Your task to perform on an android device: View the shopping cart on bestbuy.com. Search for "macbook pro" on bestbuy.com, select the first entry, add it to the cart, then select checkout. Image 0: 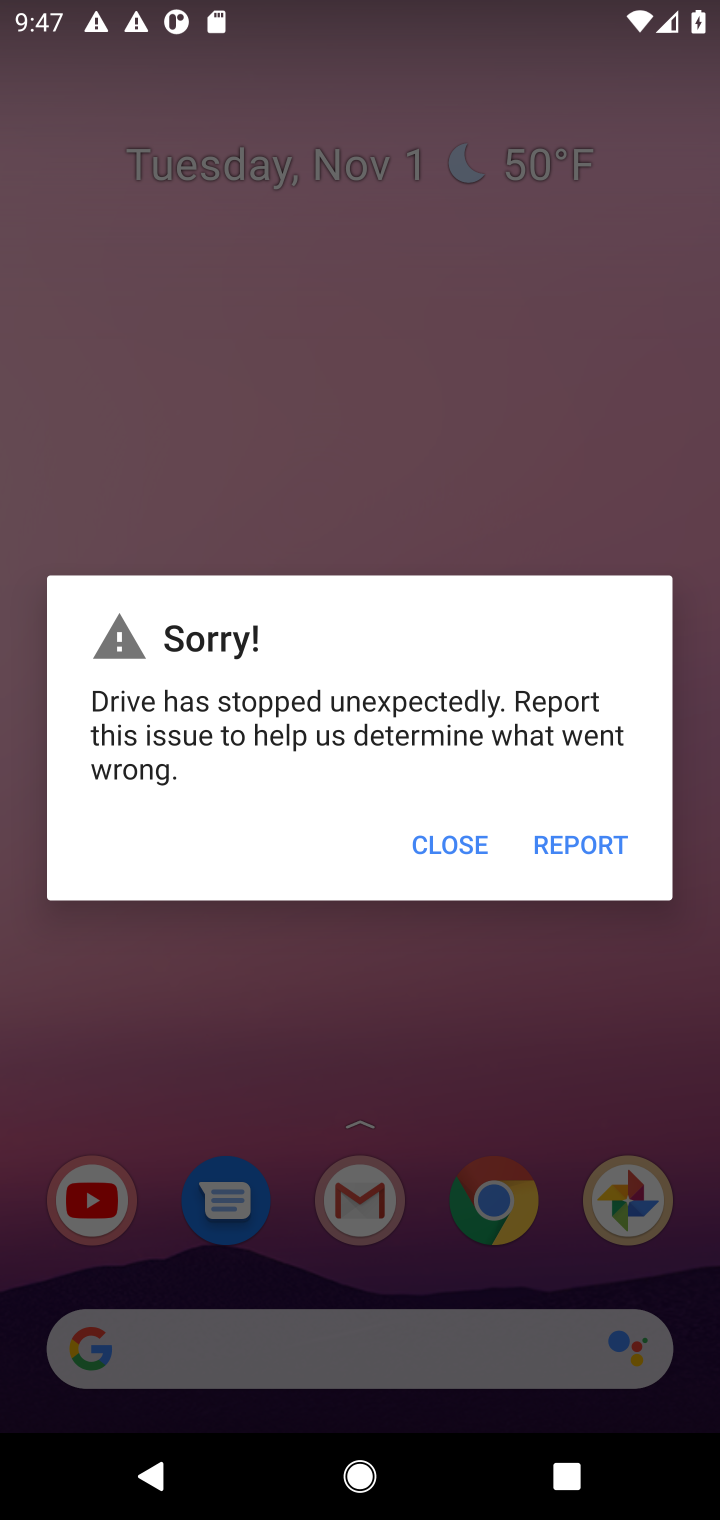
Step 0: click (459, 839)
Your task to perform on an android device: View the shopping cart on bestbuy.com. Search for "macbook pro" on bestbuy.com, select the first entry, add it to the cart, then select checkout. Image 1: 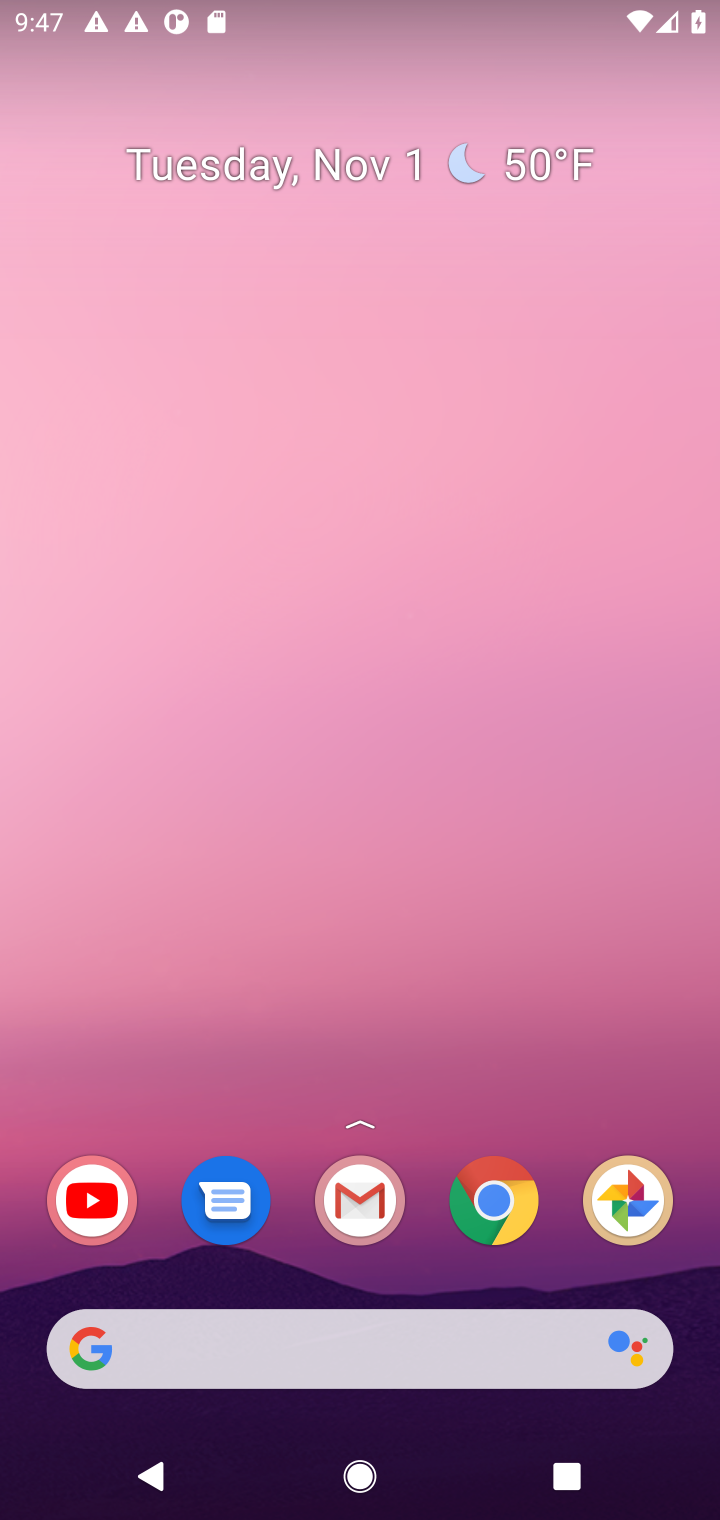
Step 1: click (364, 1332)
Your task to perform on an android device: View the shopping cart on bestbuy.com. Search for "macbook pro" on bestbuy.com, select the first entry, add it to the cart, then select checkout. Image 2: 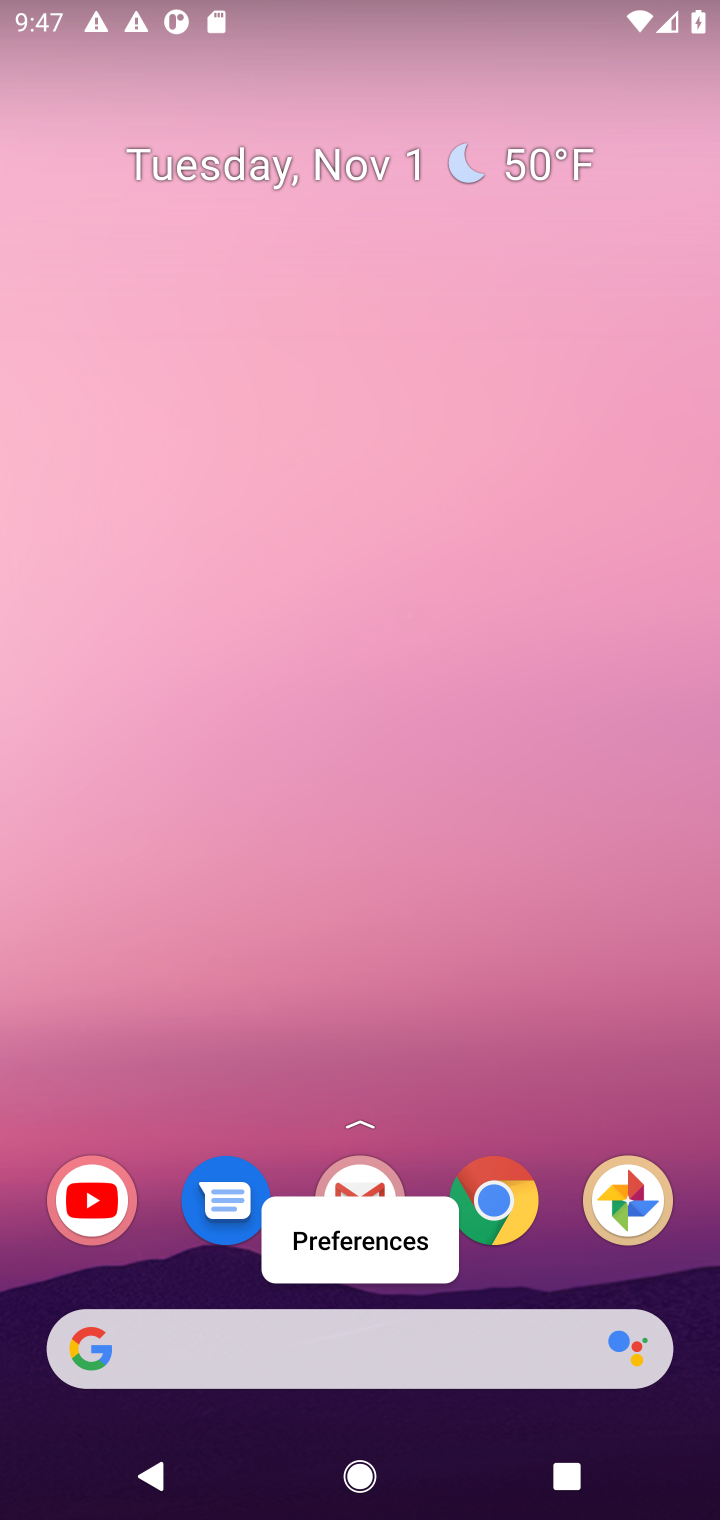
Step 2: click (212, 1339)
Your task to perform on an android device: View the shopping cart on bestbuy.com. Search for "macbook pro" on bestbuy.com, select the first entry, add it to the cart, then select checkout. Image 3: 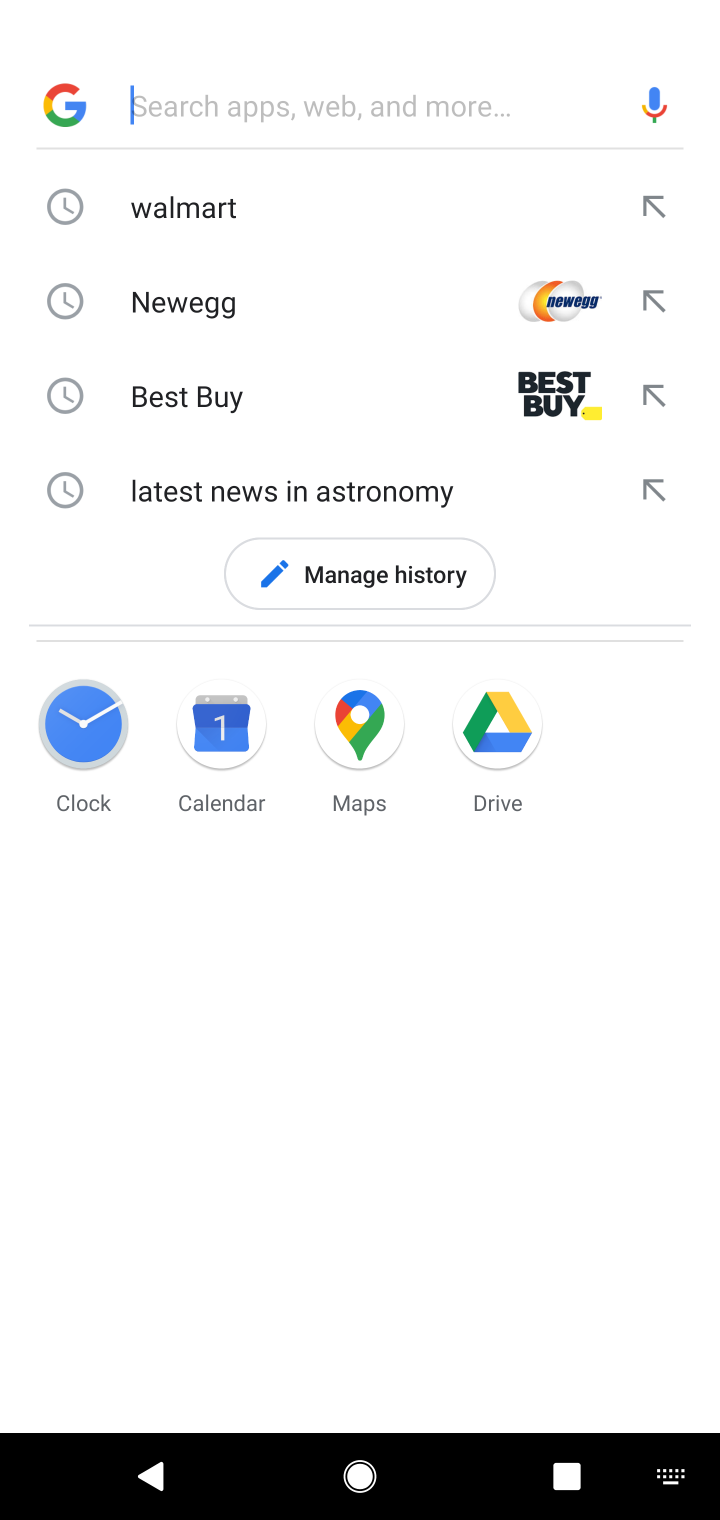
Step 3: type "bestbuy.com"
Your task to perform on an android device: View the shopping cart on bestbuy.com. Search for "macbook pro" on bestbuy.com, select the first entry, add it to the cart, then select checkout. Image 4: 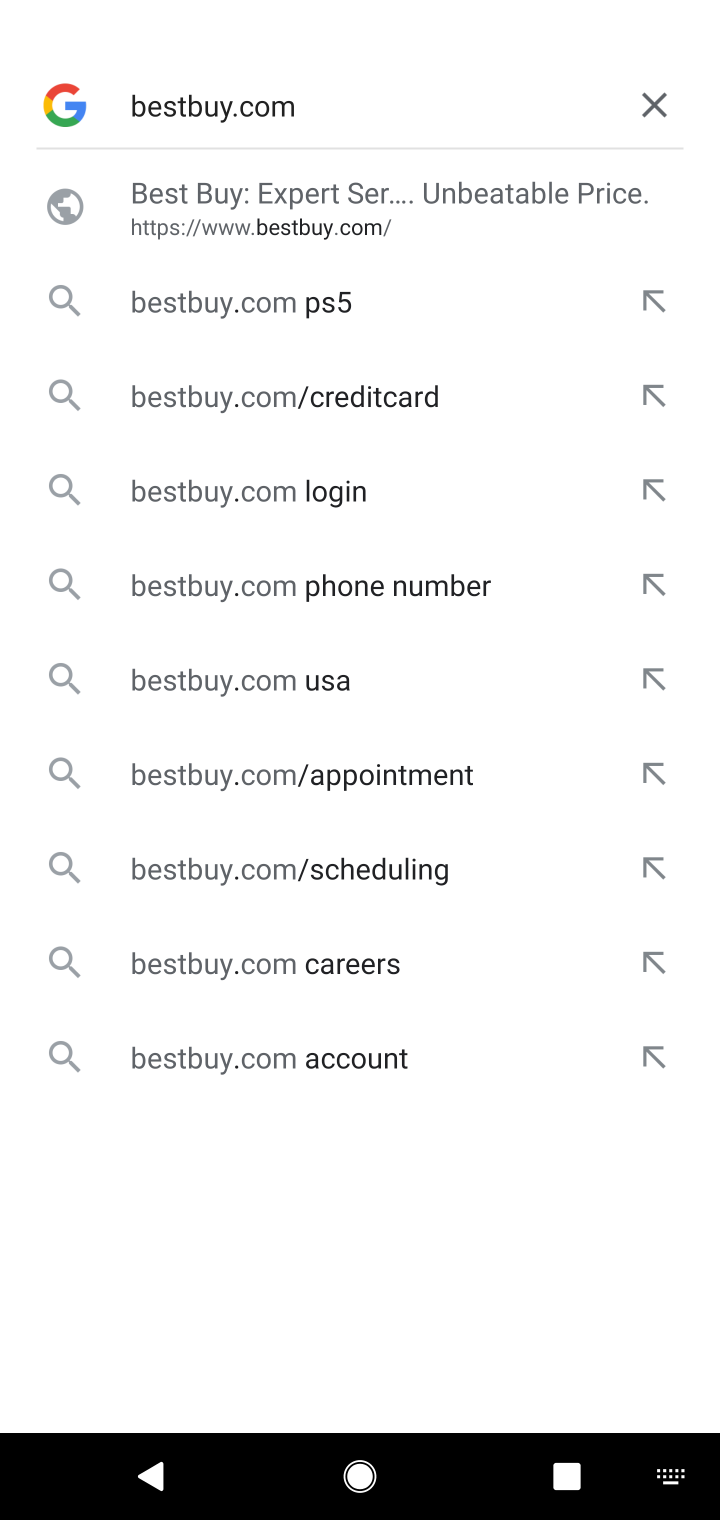
Step 4: type ""
Your task to perform on an android device: View the shopping cart on bestbuy.com. Search for "macbook pro" on bestbuy.com, select the first entry, add it to the cart, then select checkout. Image 5: 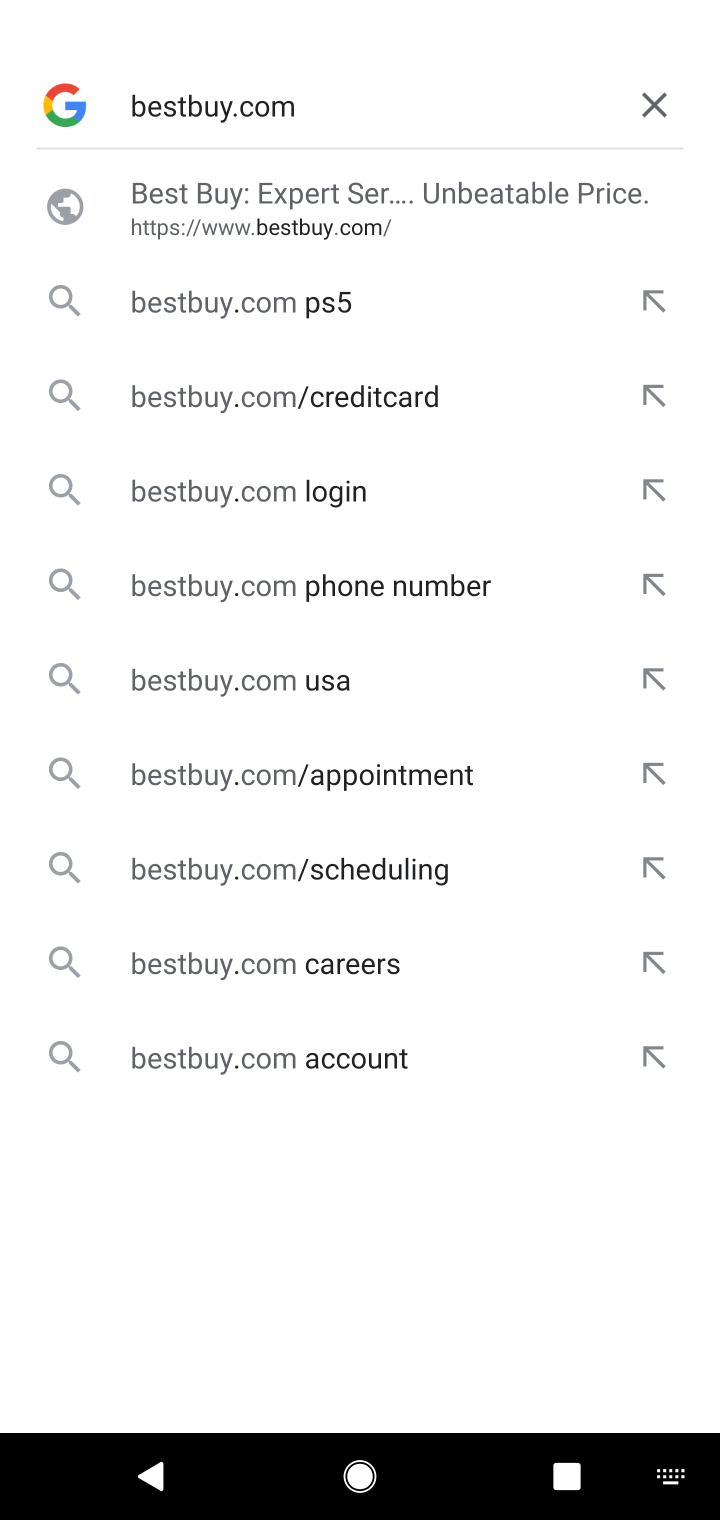
Step 5: click (301, 236)
Your task to perform on an android device: View the shopping cart on bestbuy.com. Search for "macbook pro" on bestbuy.com, select the first entry, add it to the cart, then select checkout. Image 6: 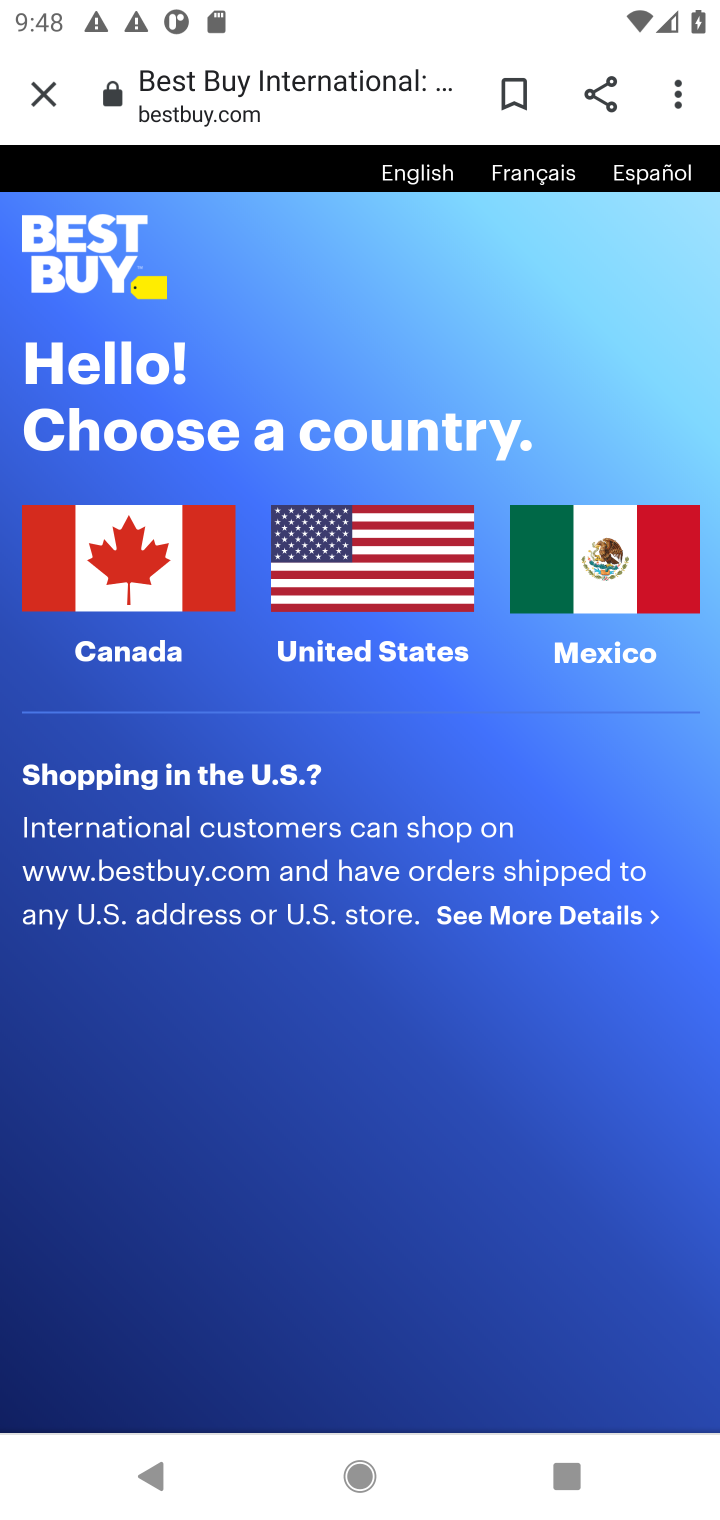
Step 6: click (448, 573)
Your task to perform on an android device: View the shopping cart on bestbuy.com. Search for "macbook pro" on bestbuy.com, select the first entry, add it to the cart, then select checkout. Image 7: 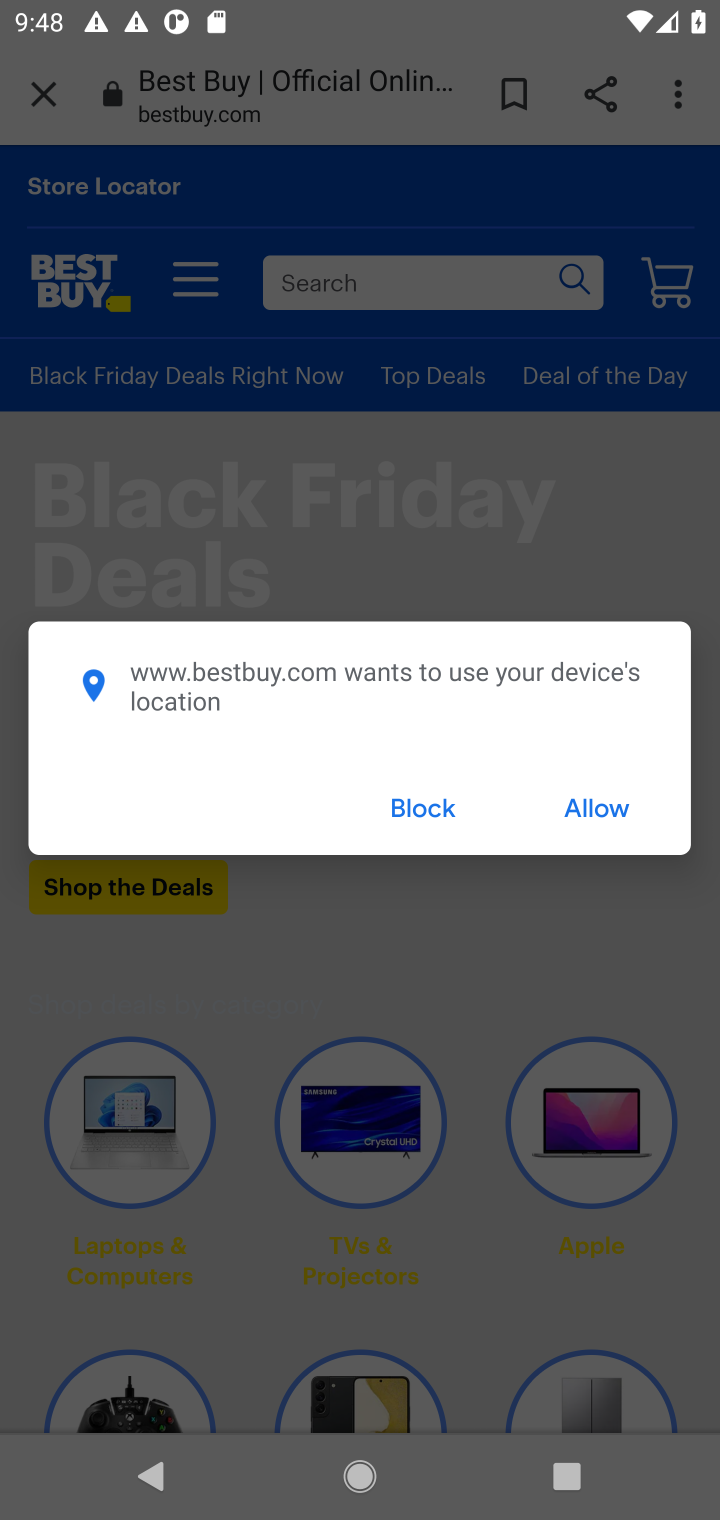
Step 7: click (386, 824)
Your task to perform on an android device: View the shopping cart on bestbuy.com. Search for "macbook pro" on bestbuy.com, select the first entry, add it to the cart, then select checkout. Image 8: 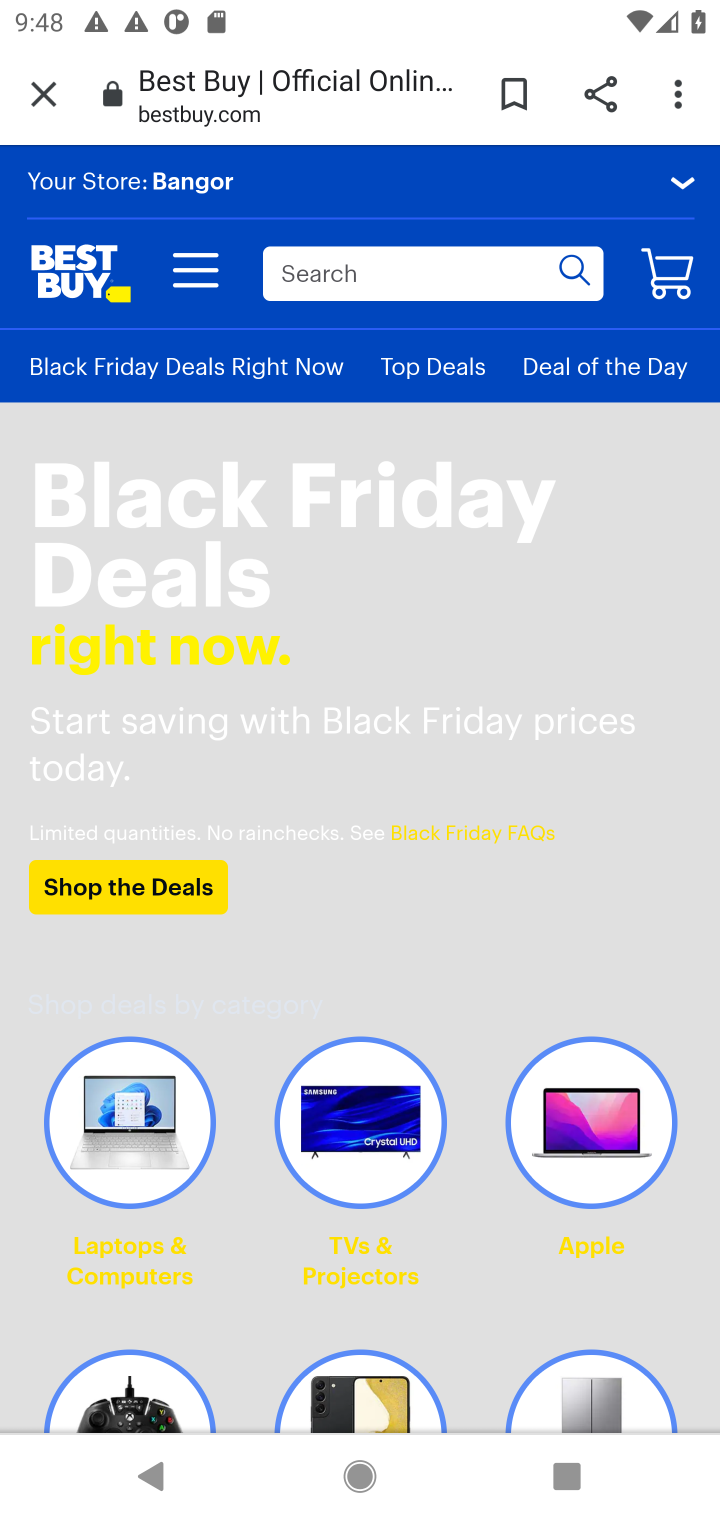
Step 8: click (335, 280)
Your task to perform on an android device: View the shopping cart on bestbuy.com. Search for "macbook pro" on bestbuy.com, select the first entry, add it to the cart, then select checkout. Image 9: 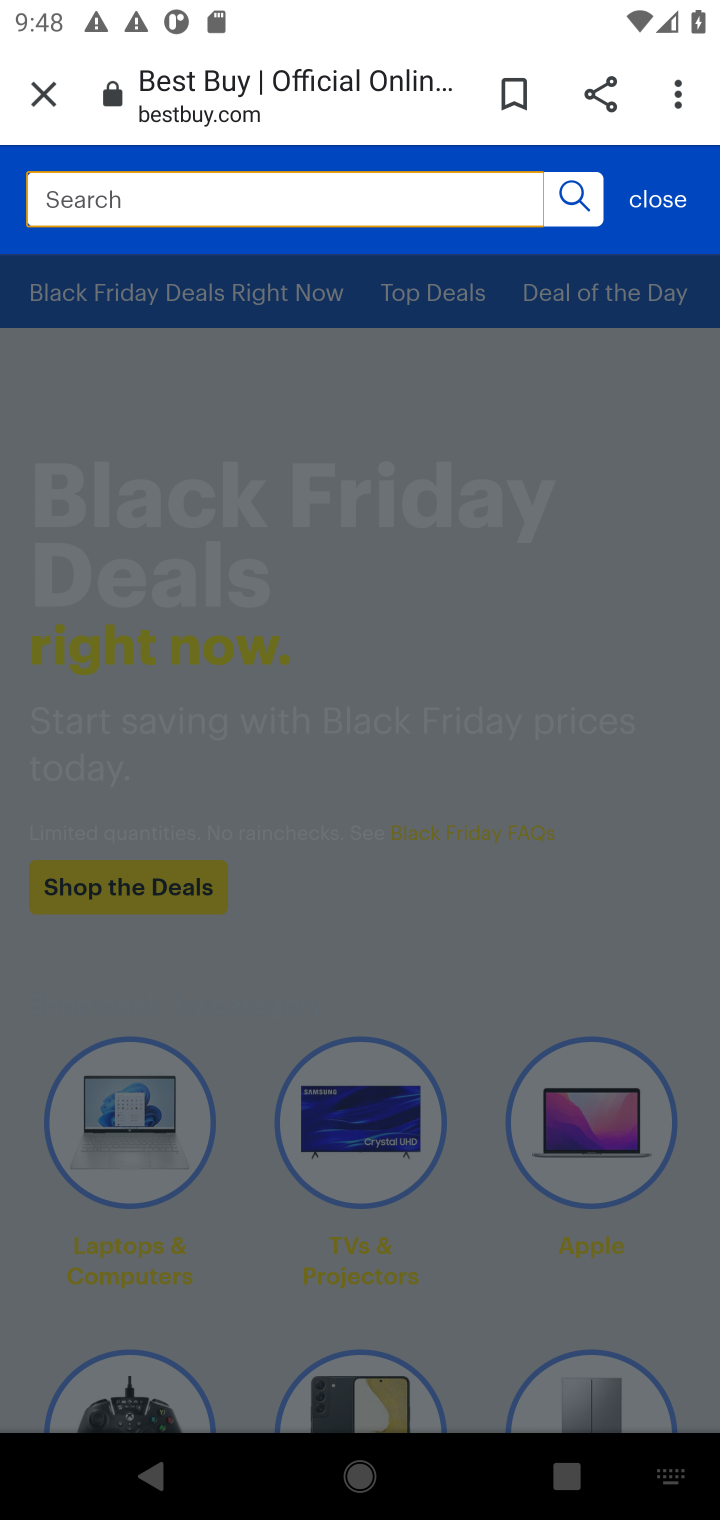
Step 9: type "macbook pro"
Your task to perform on an android device: View the shopping cart on bestbuy.com. Search for "macbook pro" on bestbuy.com, select the first entry, add it to the cart, then select checkout. Image 10: 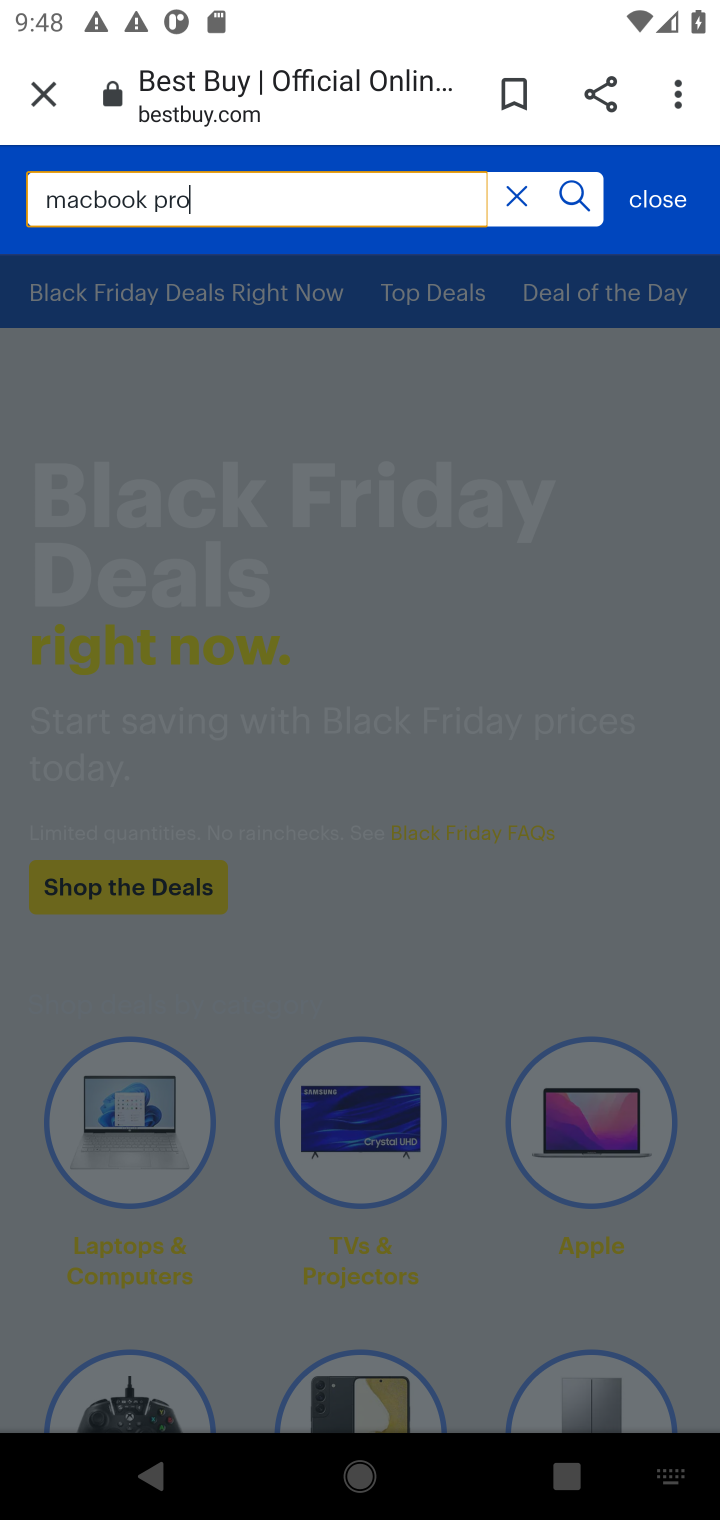
Step 10: type ""
Your task to perform on an android device: View the shopping cart on bestbuy.com. Search for "macbook pro" on bestbuy.com, select the first entry, add it to the cart, then select checkout. Image 11: 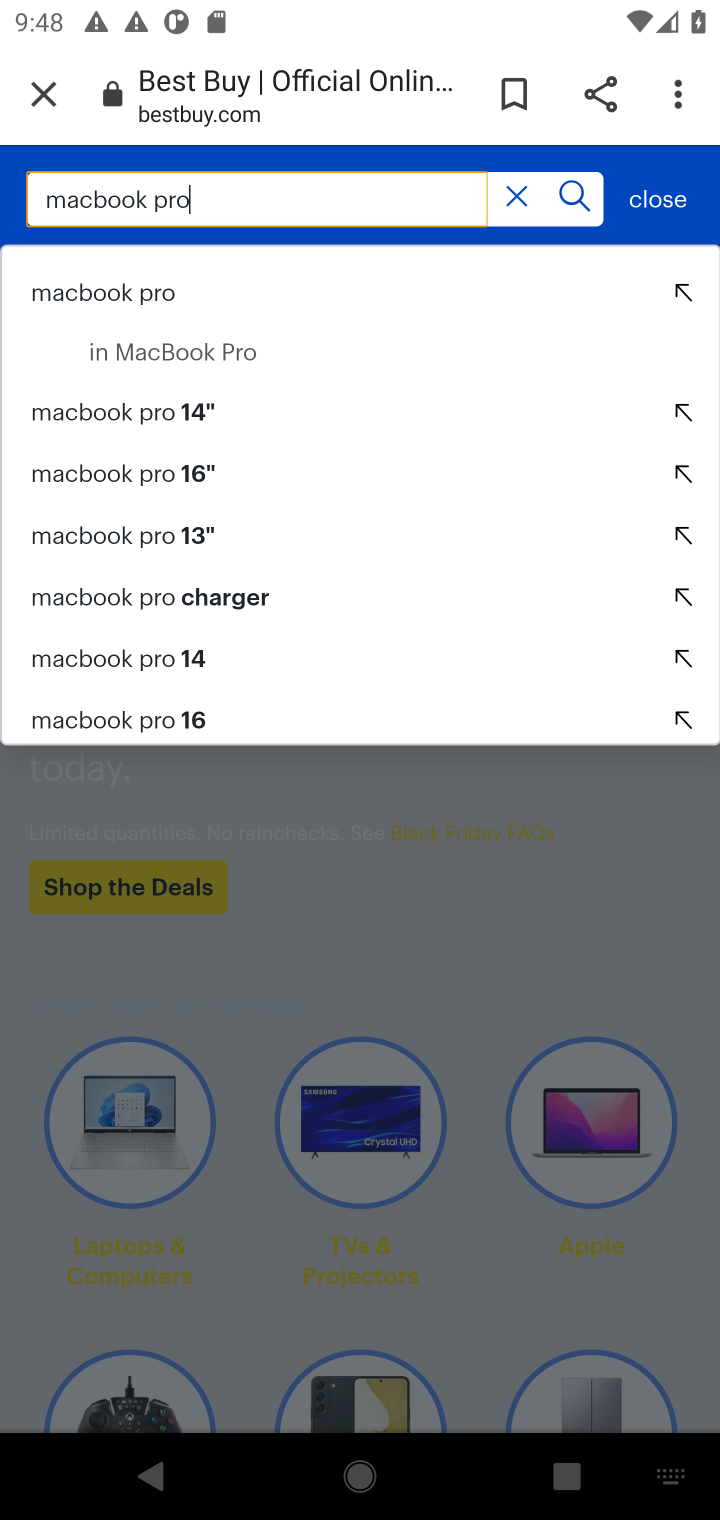
Step 11: click (210, 323)
Your task to perform on an android device: View the shopping cart on bestbuy.com. Search for "macbook pro" on bestbuy.com, select the first entry, add it to the cart, then select checkout. Image 12: 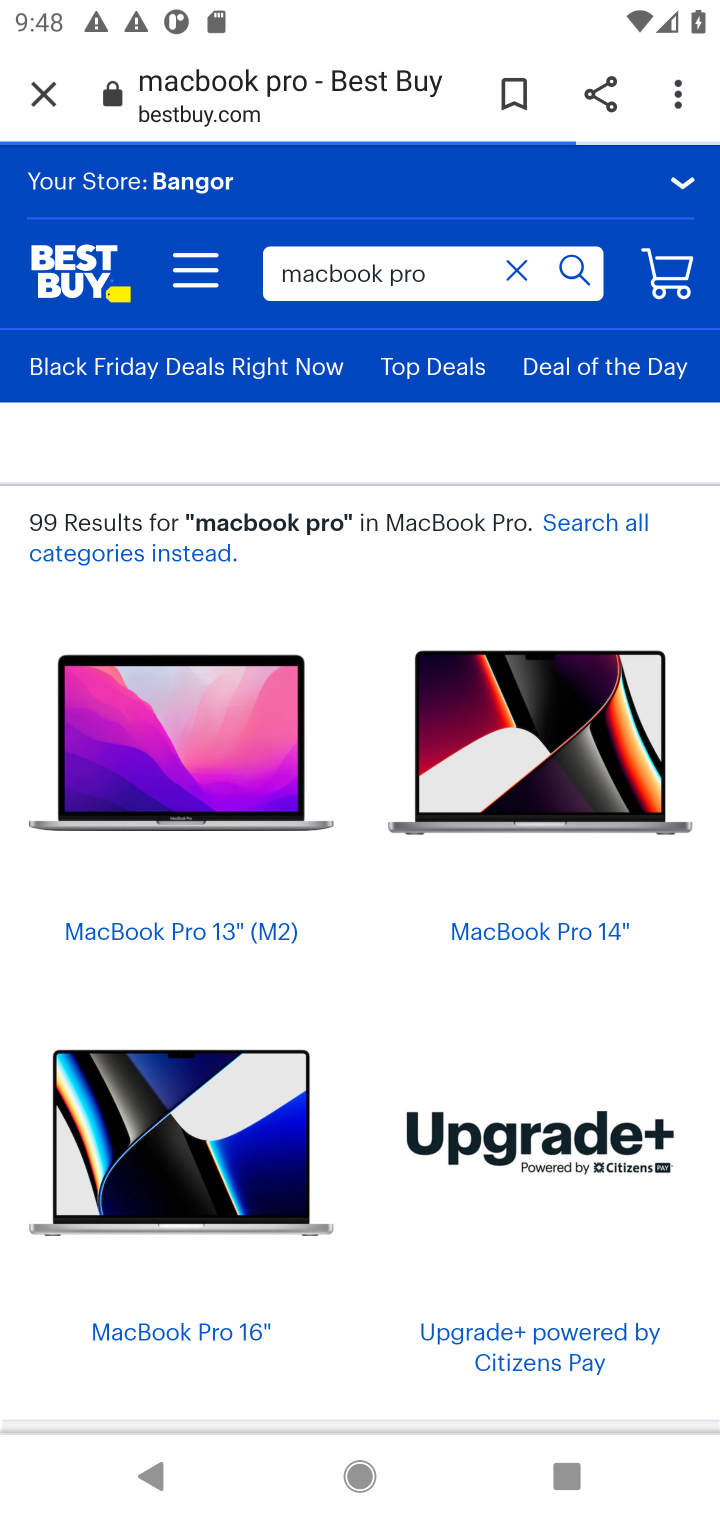
Step 12: click (317, 749)
Your task to perform on an android device: View the shopping cart on bestbuy.com. Search for "macbook pro" on bestbuy.com, select the first entry, add it to the cart, then select checkout. Image 13: 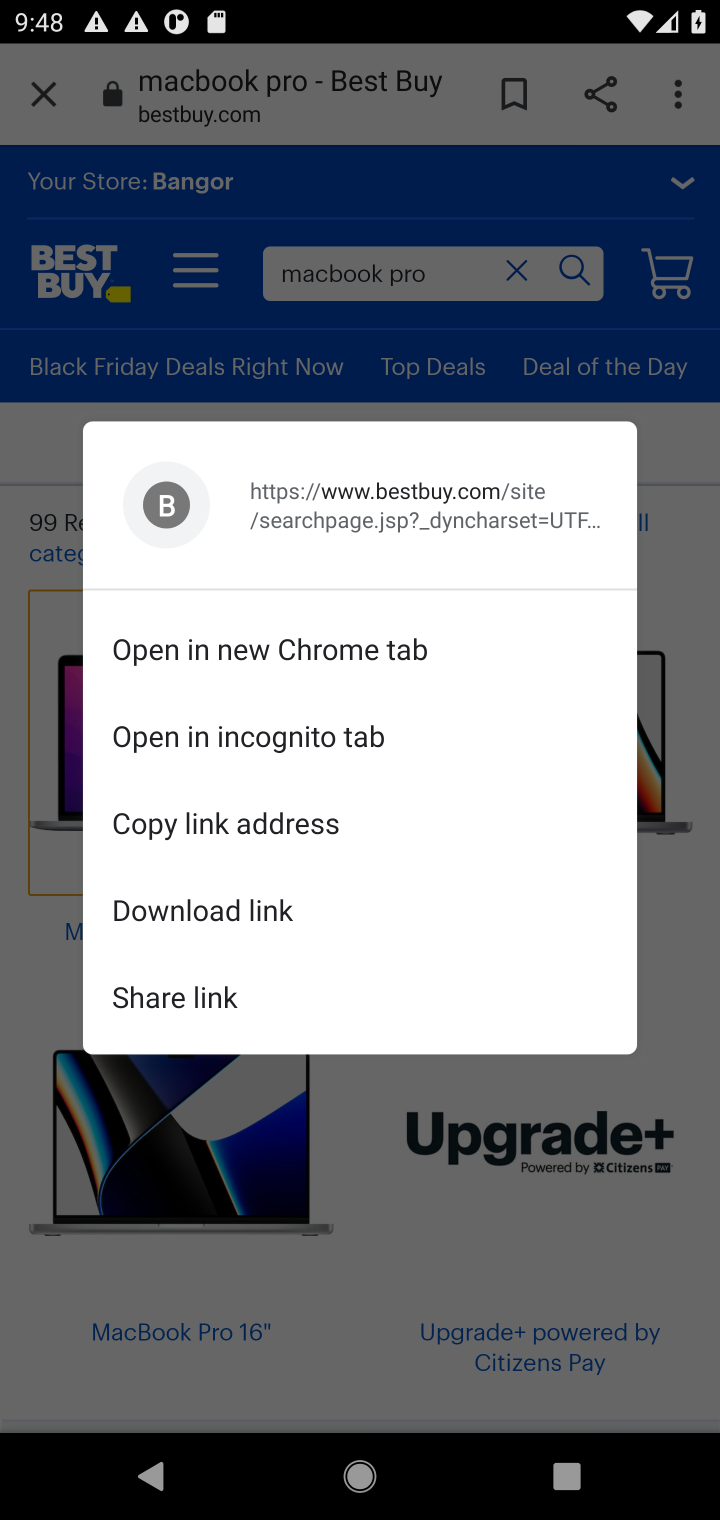
Step 13: click (685, 869)
Your task to perform on an android device: View the shopping cart on bestbuy.com. Search for "macbook pro" on bestbuy.com, select the first entry, add it to the cart, then select checkout. Image 14: 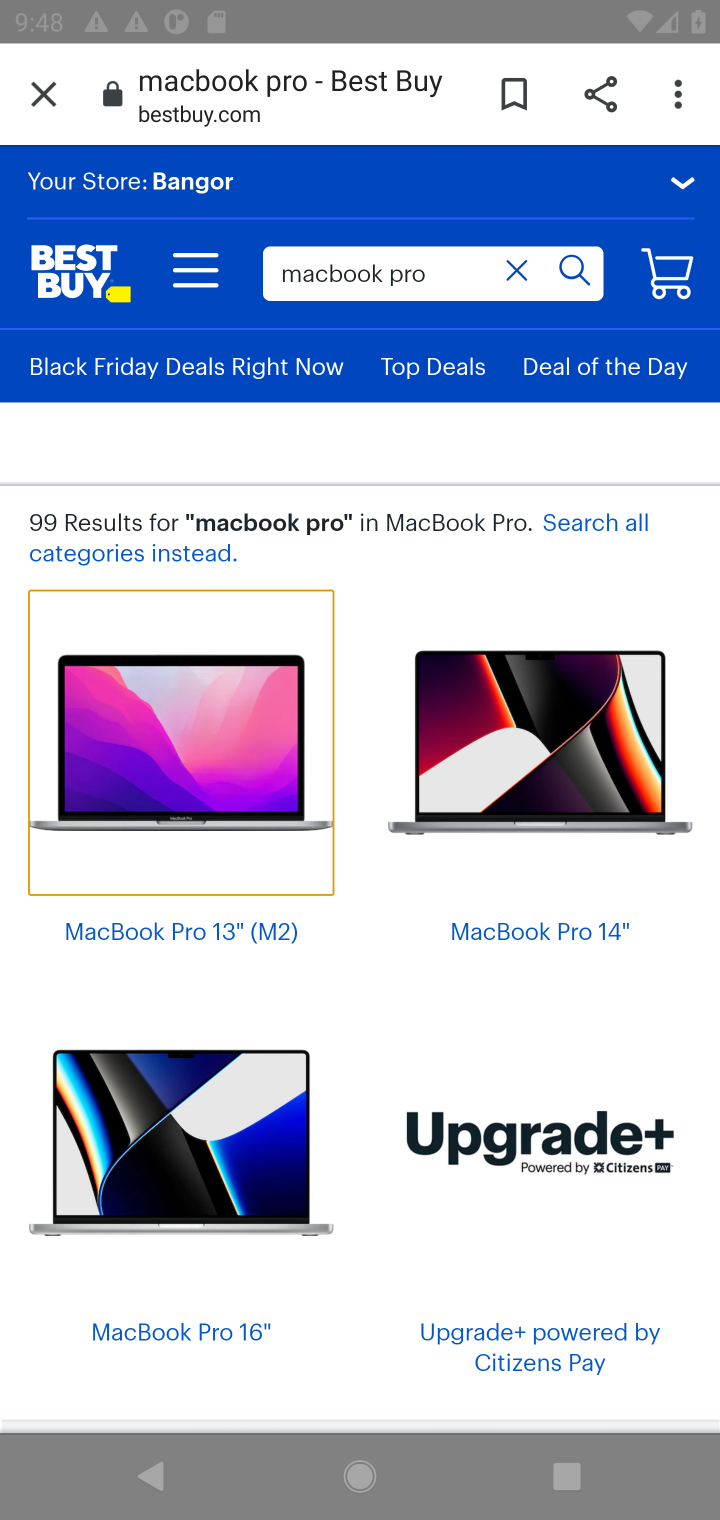
Step 14: click (106, 707)
Your task to perform on an android device: View the shopping cart on bestbuy.com. Search for "macbook pro" on bestbuy.com, select the first entry, add it to the cart, then select checkout. Image 15: 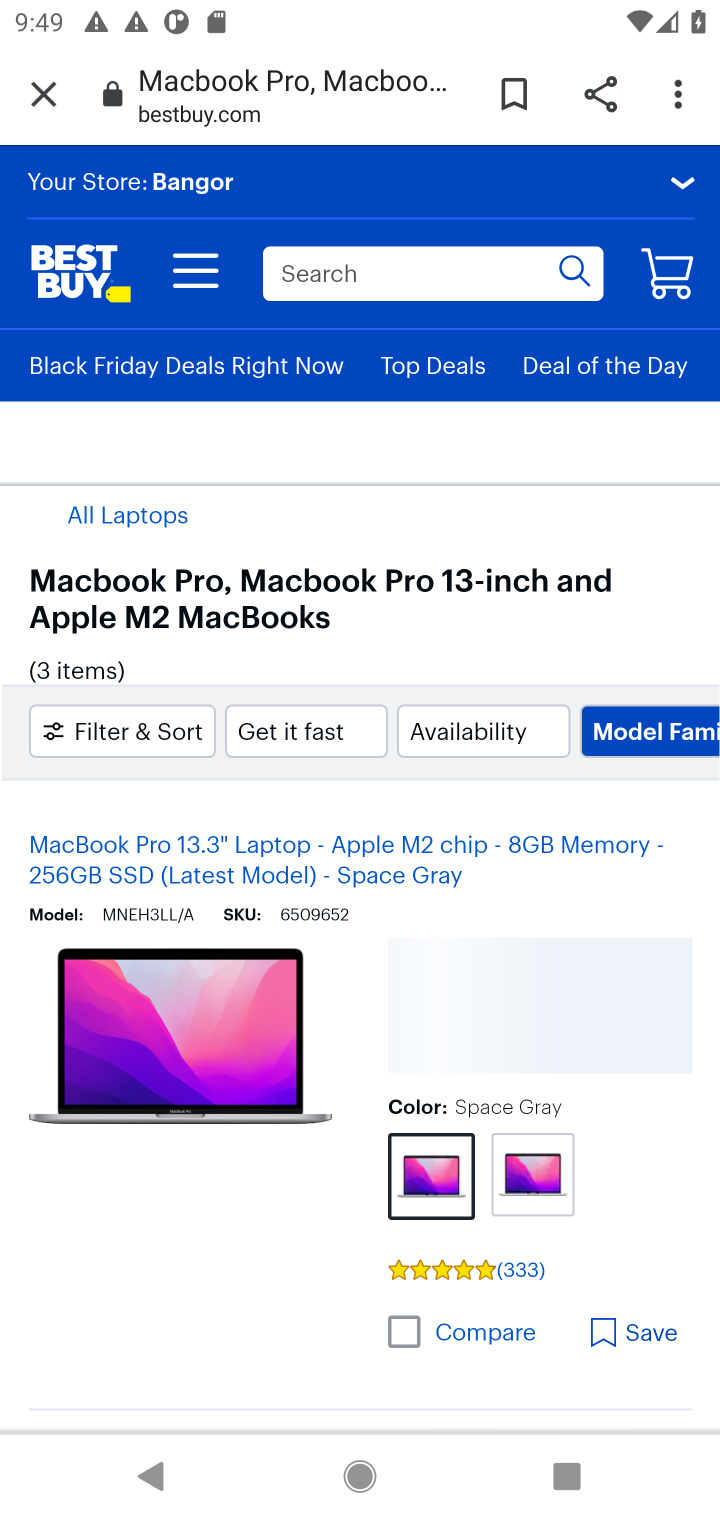
Step 15: drag from (592, 1058) to (671, 421)
Your task to perform on an android device: View the shopping cart on bestbuy.com. Search for "macbook pro" on bestbuy.com, select the first entry, add it to the cart, then select checkout. Image 16: 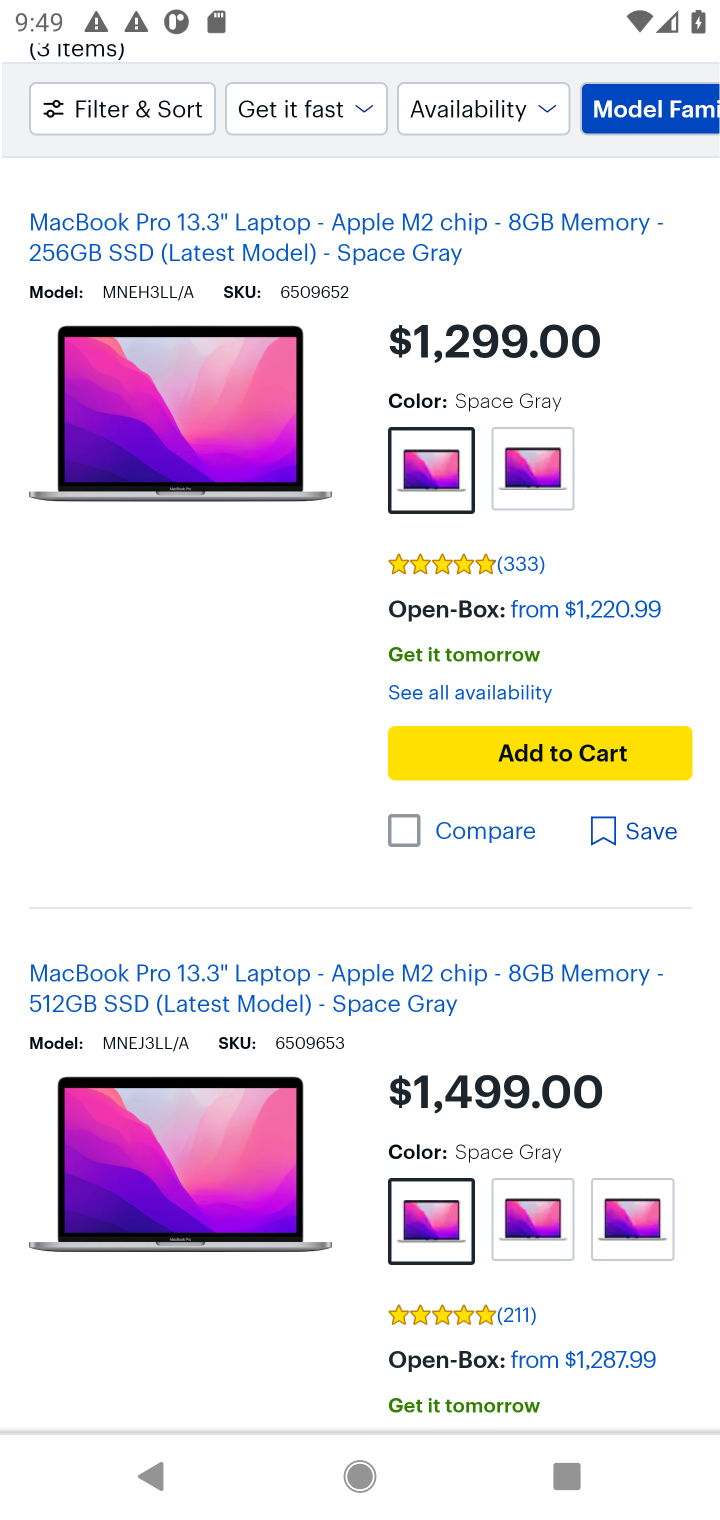
Step 16: click (395, 344)
Your task to perform on an android device: View the shopping cart on bestbuy.com. Search for "macbook pro" on bestbuy.com, select the first entry, add it to the cart, then select checkout. Image 17: 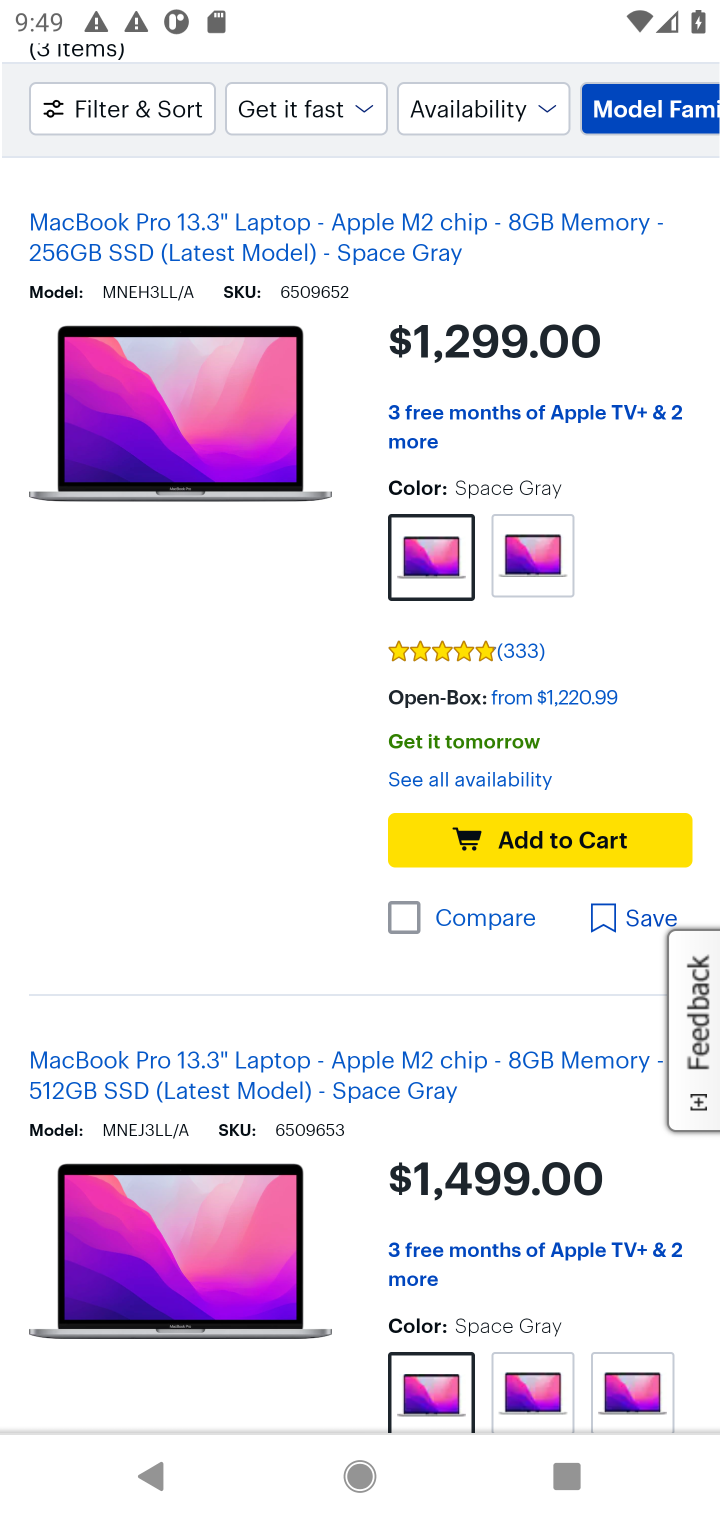
Step 17: click (576, 818)
Your task to perform on an android device: View the shopping cart on bestbuy.com. Search for "macbook pro" on bestbuy.com, select the first entry, add it to the cart, then select checkout. Image 18: 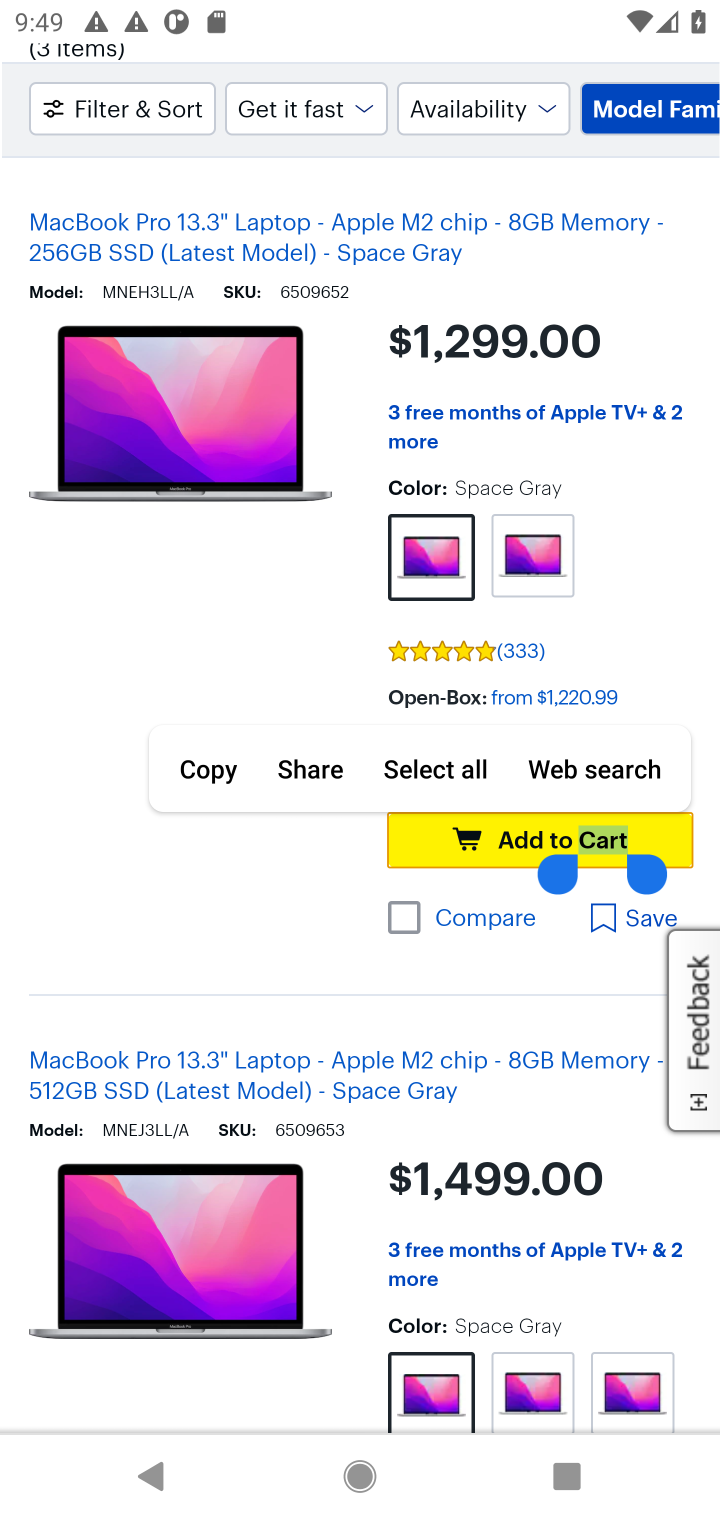
Step 18: click (92, 866)
Your task to perform on an android device: View the shopping cart on bestbuy.com. Search for "macbook pro" on bestbuy.com, select the first entry, add it to the cart, then select checkout. Image 19: 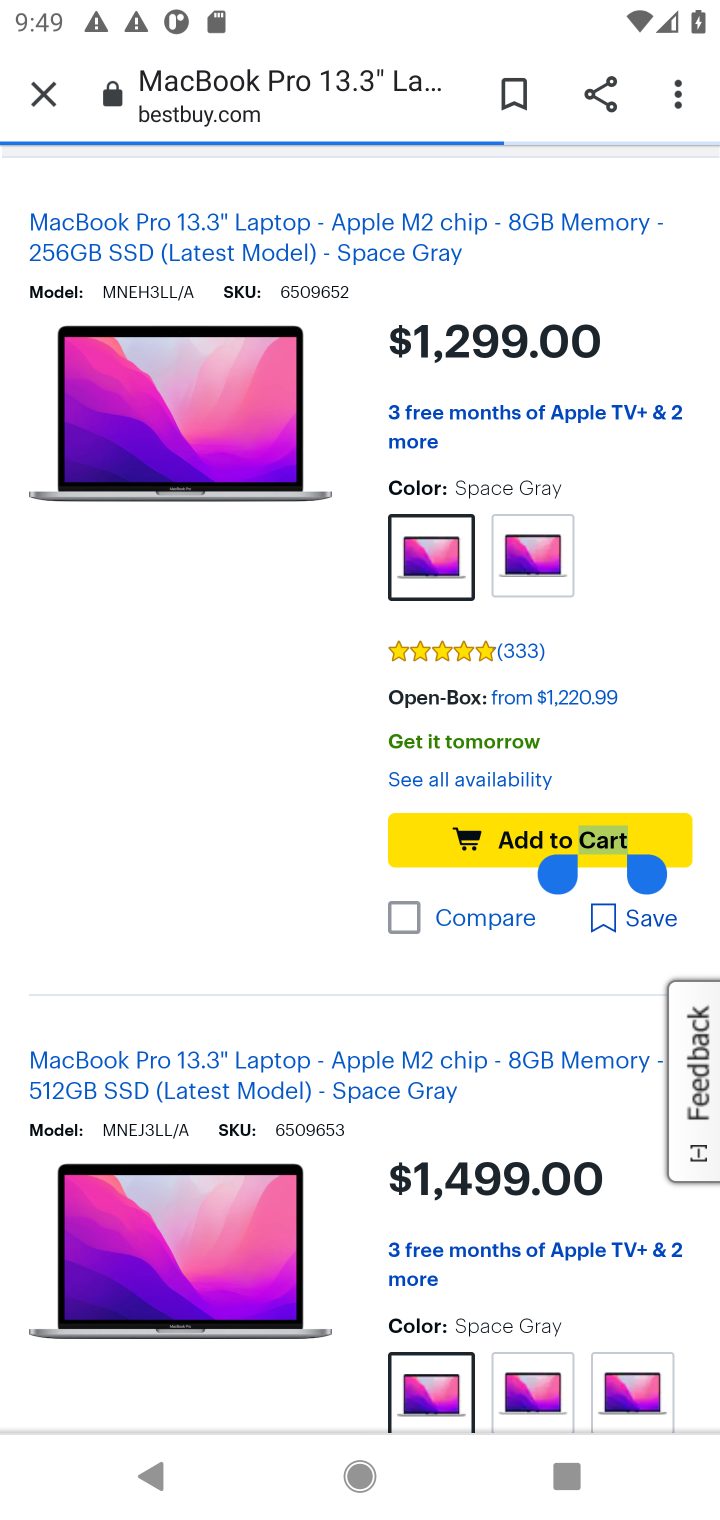
Step 19: click (468, 841)
Your task to perform on an android device: View the shopping cart on bestbuy.com. Search for "macbook pro" on bestbuy.com, select the first entry, add it to the cart, then select checkout. Image 20: 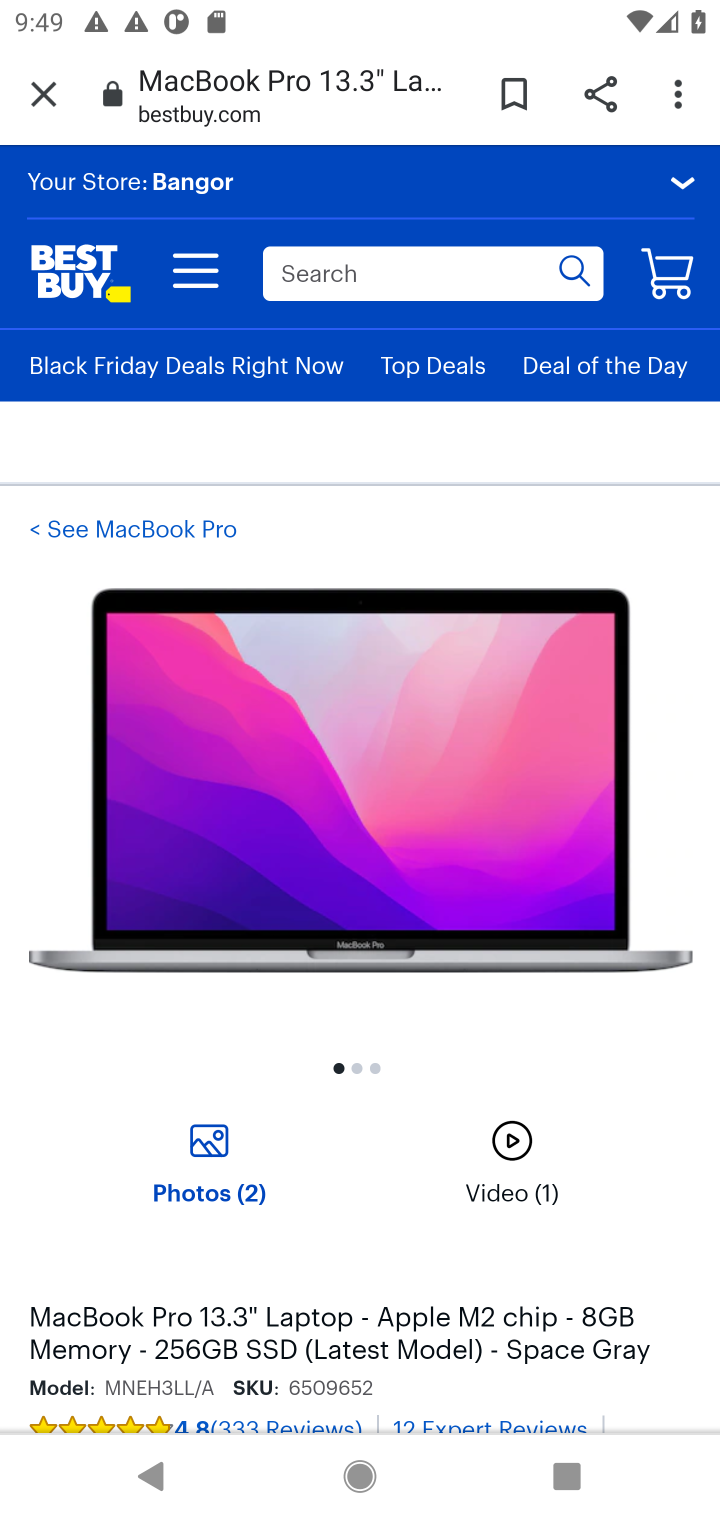
Step 20: task complete